Your task to perform on an android device: turn vacation reply on in the gmail app Image 0: 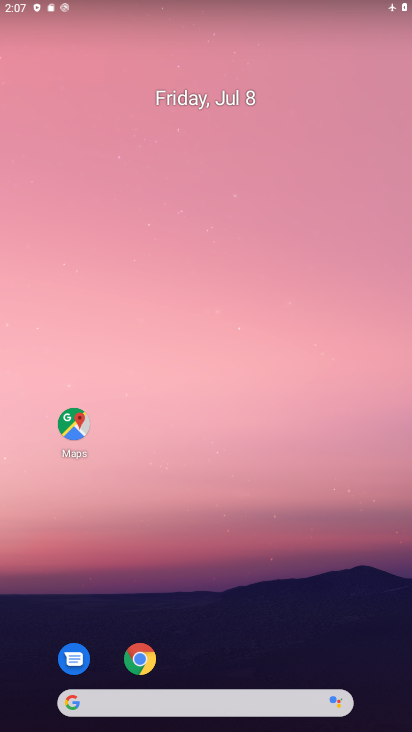
Step 0: drag from (309, 619) to (247, 80)
Your task to perform on an android device: turn vacation reply on in the gmail app Image 1: 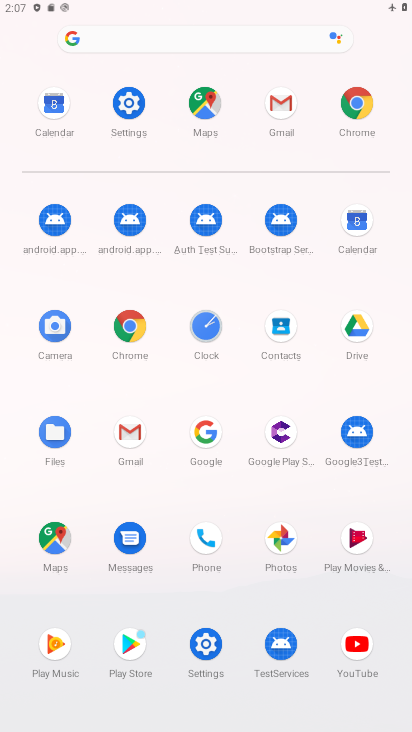
Step 1: click (137, 448)
Your task to perform on an android device: turn vacation reply on in the gmail app Image 2: 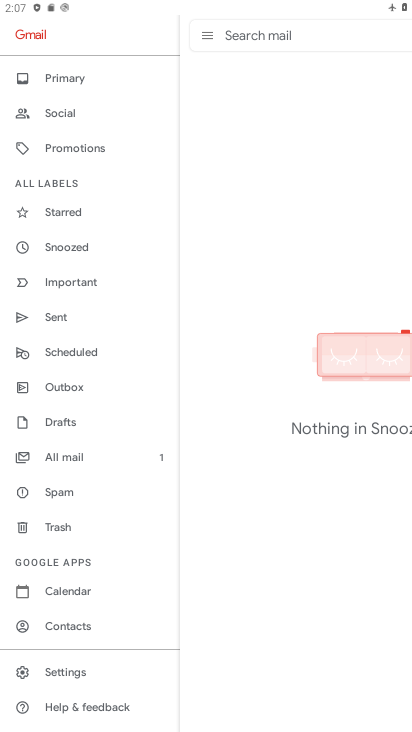
Step 2: drag from (91, 664) to (80, 385)
Your task to perform on an android device: turn vacation reply on in the gmail app Image 3: 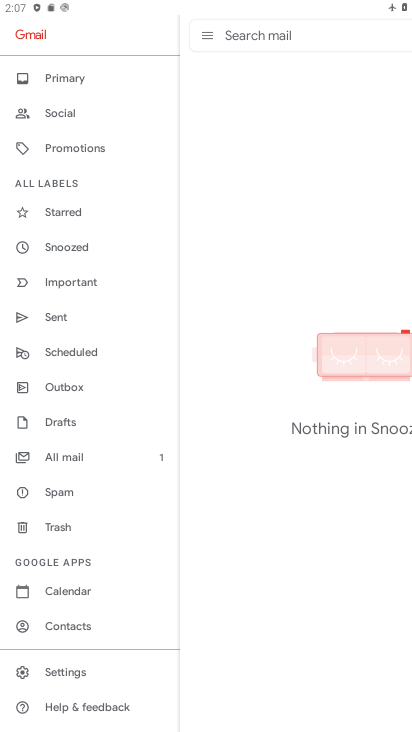
Step 3: drag from (84, 282) to (127, 567)
Your task to perform on an android device: turn vacation reply on in the gmail app Image 4: 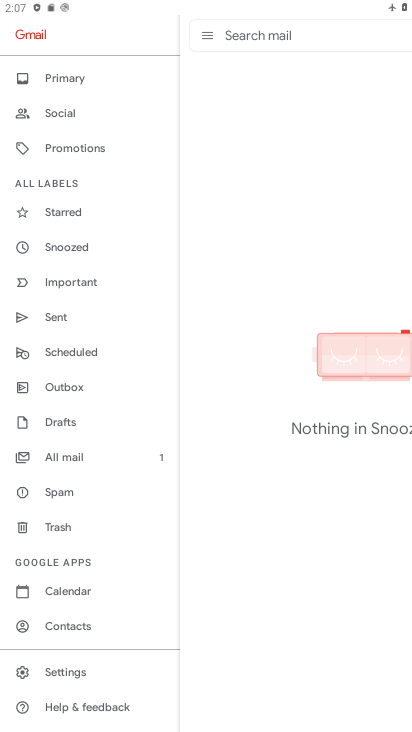
Step 4: click (65, 677)
Your task to perform on an android device: turn vacation reply on in the gmail app Image 5: 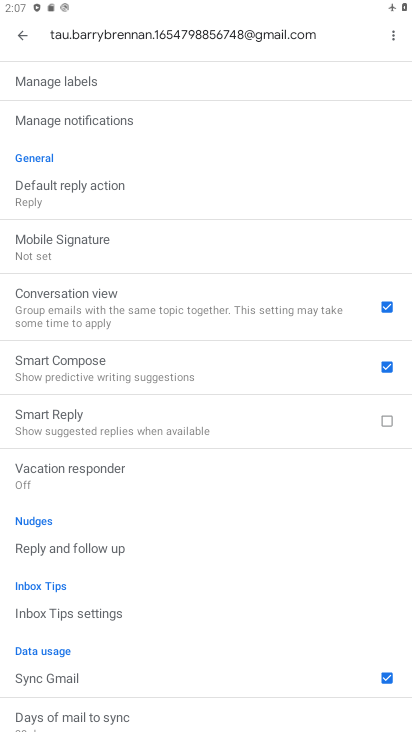
Step 5: click (143, 479)
Your task to perform on an android device: turn vacation reply on in the gmail app Image 6: 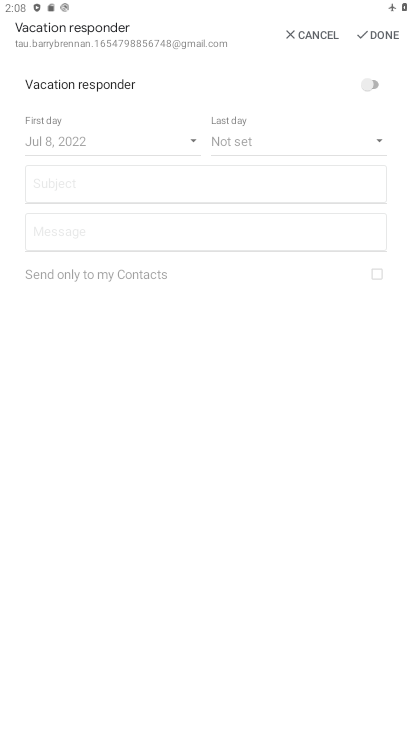
Step 6: click (359, 88)
Your task to perform on an android device: turn vacation reply on in the gmail app Image 7: 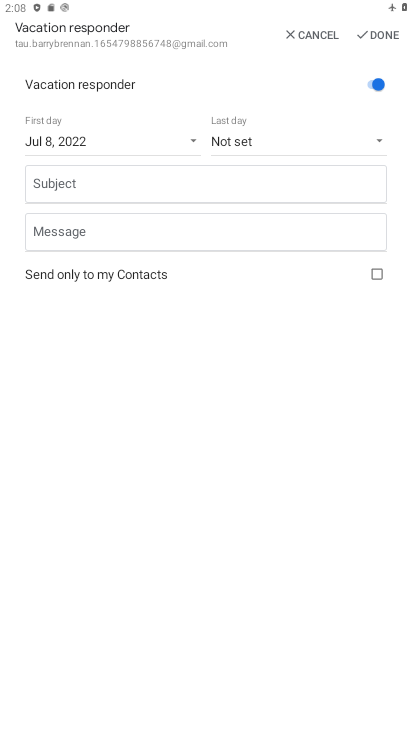
Step 7: click (384, 42)
Your task to perform on an android device: turn vacation reply on in the gmail app Image 8: 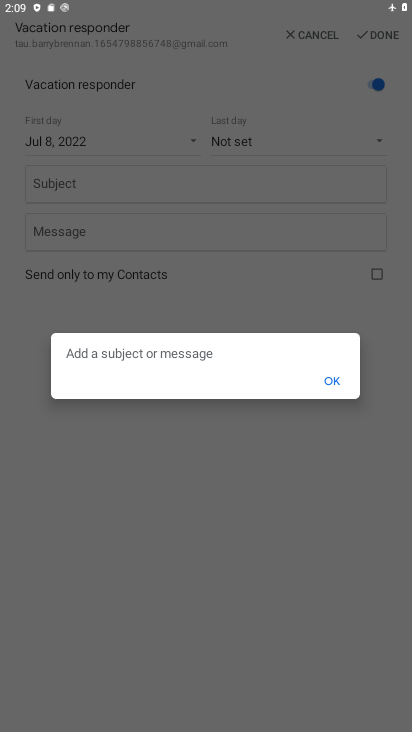
Step 8: click (319, 378)
Your task to perform on an android device: turn vacation reply on in the gmail app Image 9: 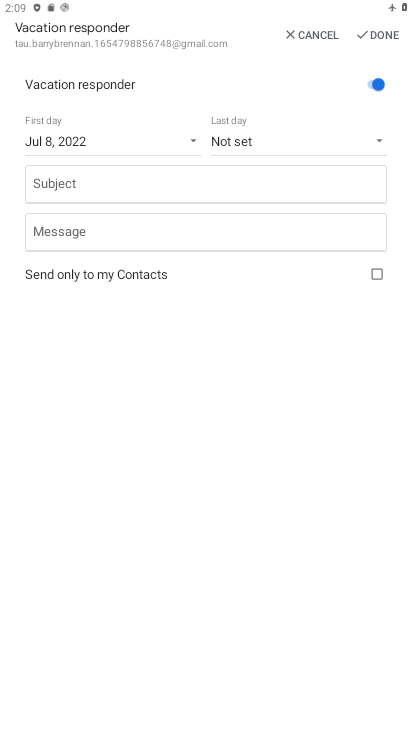
Step 9: click (369, 36)
Your task to perform on an android device: turn vacation reply on in the gmail app Image 10: 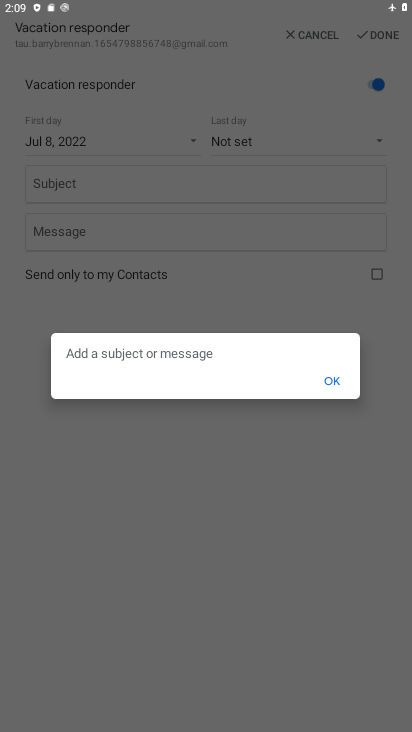
Step 10: click (235, 420)
Your task to perform on an android device: turn vacation reply on in the gmail app Image 11: 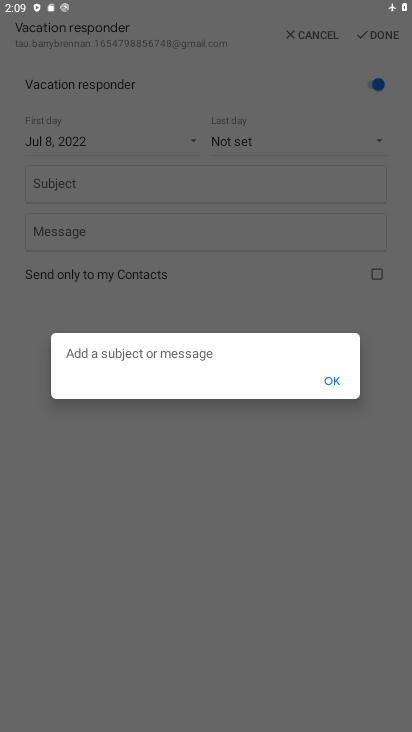
Step 11: click (333, 377)
Your task to perform on an android device: turn vacation reply on in the gmail app Image 12: 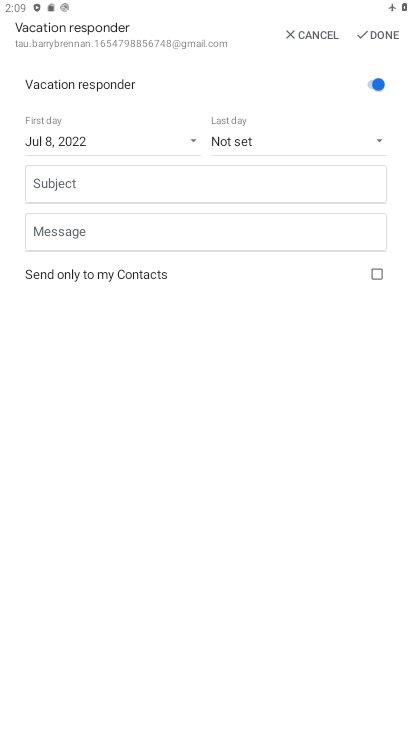
Step 12: task complete